Your task to perform on an android device: toggle pop-ups in chrome Image 0: 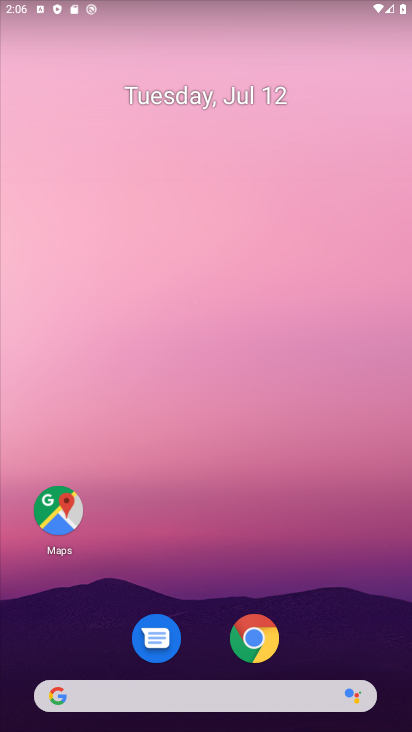
Step 0: click (259, 648)
Your task to perform on an android device: toggle pop-ups in chrome Image 1: 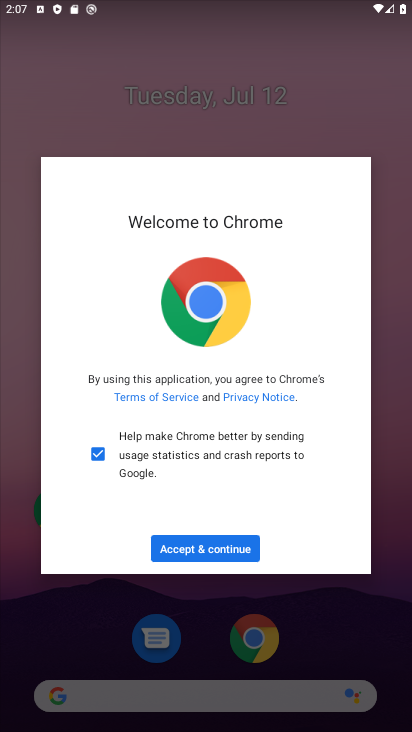
Step 1: click (222, 552)
Your task to perform on an android device: toggle pop-ups in chrome Image 2: 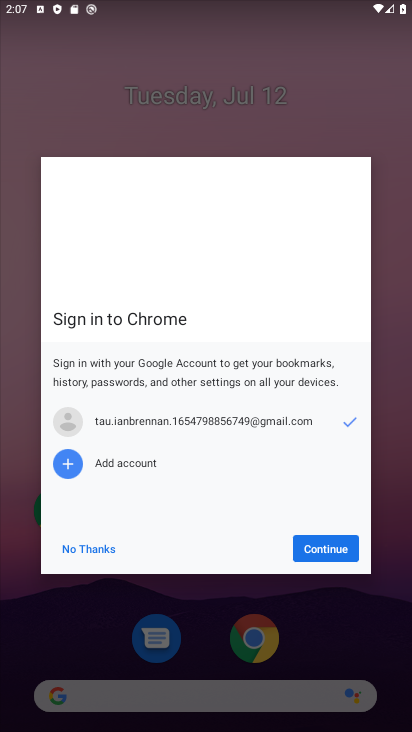
Step 2: click (319, 553)
Your task to perform on an android device: toggle pop-ups in chrome Image 3: 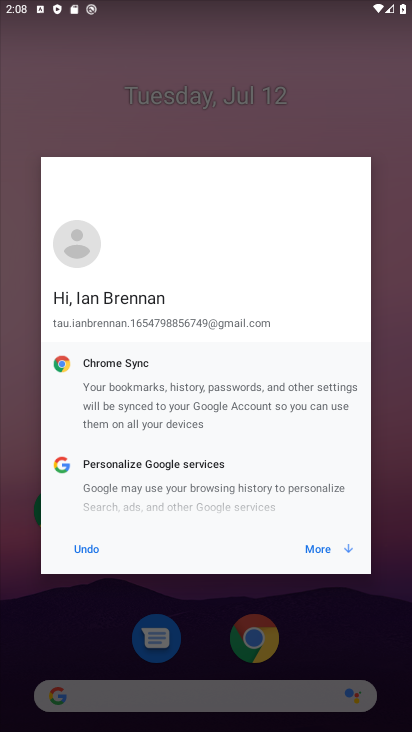
Step 3: click (320, 543)
Your task to perform on an android device: toggle pop-ups in chrome Image 4: 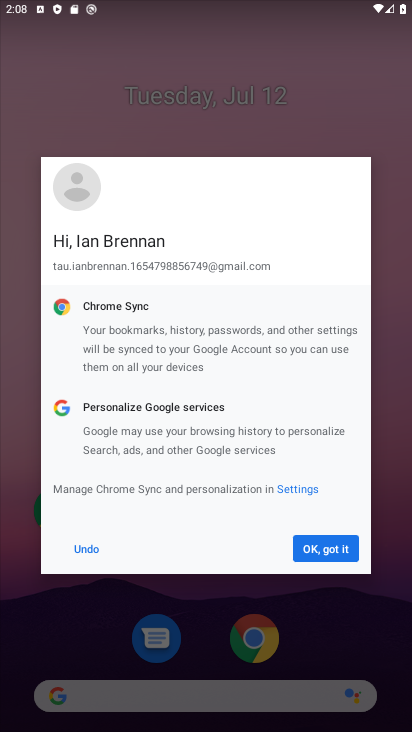
Step 4: click (313, 549)
Your task to perform on an android device: toggle pop-ups in chrome Image 5: 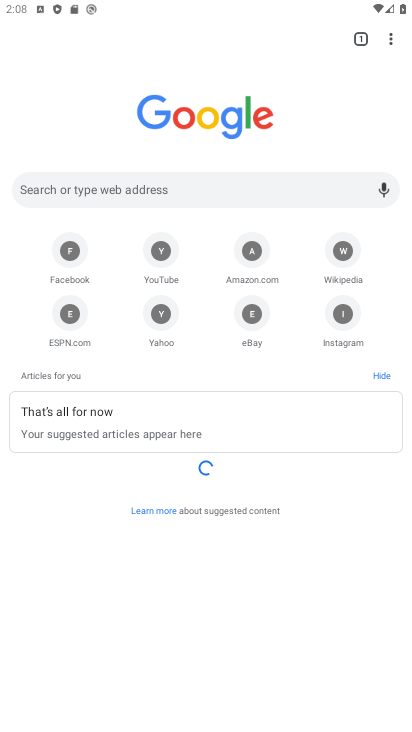
Step 5: drag from (391, 39) to (269, 325)
Your task to perform on an android device: toggle pop-ups in chrome Image 6: 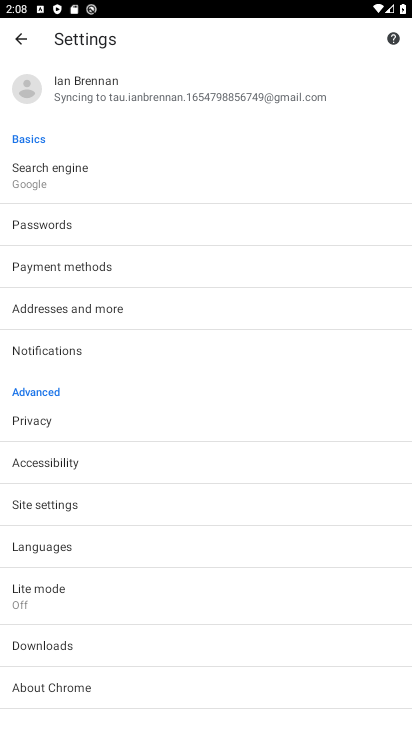
Step 6: click (72, 505)
Your task to perform on an android device: toggle pop-ups in chrome Image 7: 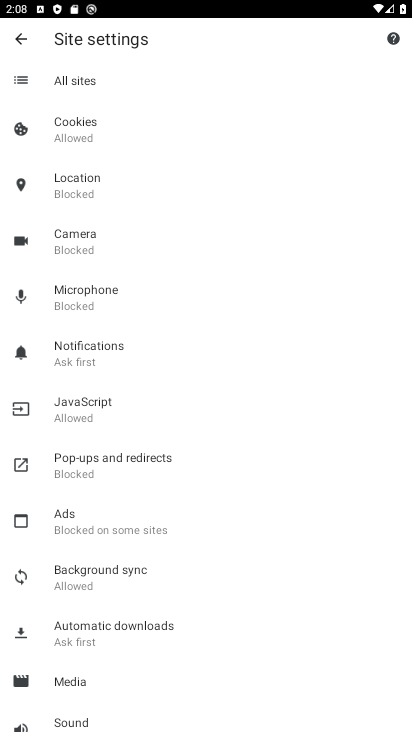
Step 7: click (133, 464)
Your task to perform on an android device: toggle pop-ups in chrome Image 8: 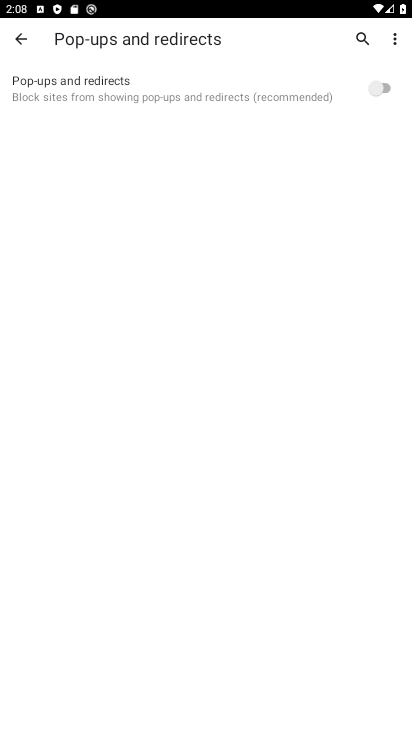
Step 8: click (380, 86)
Your task to perform on an android device: toggle pop-ups in chrome Image 9: 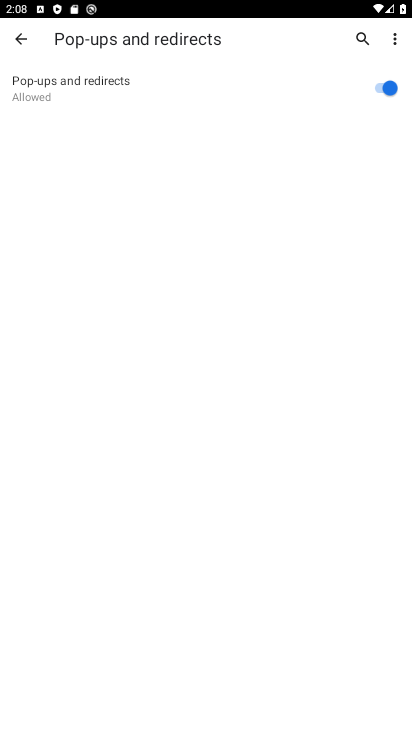
Step 9: task complete